Your task to perform on an android device: Open Youtube and go to the subscriptions tab Image 0: 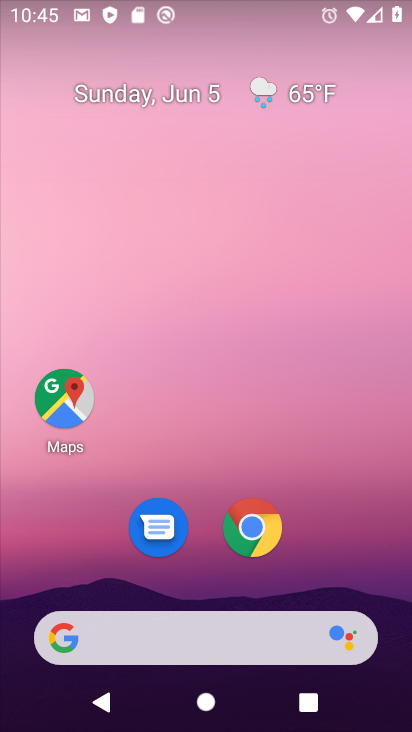
Step 0: drag from (35, 531) to (216, 129)
Your task to perform on an android device: Open Youtube and go to the subscriptions tab Image 1: 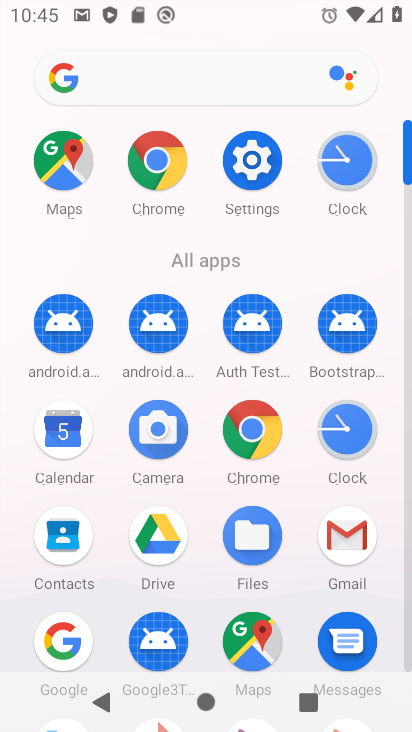
Step 1: drag from (9, 607) to (260, 74)
Your task to perform on an android device: Open Youtube and go to the subscriptions tab Image 2: 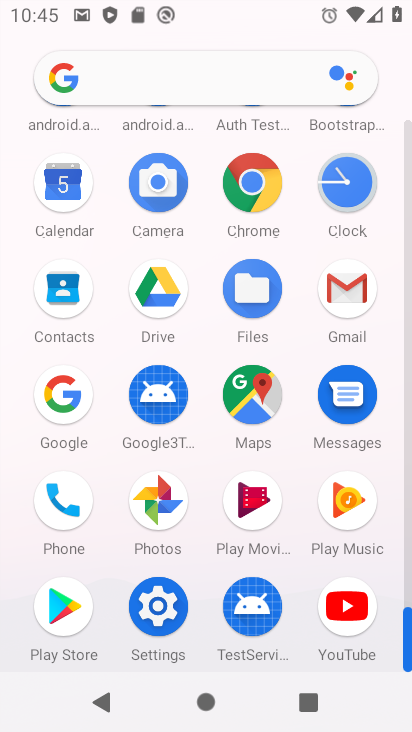
Step 2: click (348, 599)
Your task to perform on an android device: Open Youtube and go to the subscriptions tab Image 3: 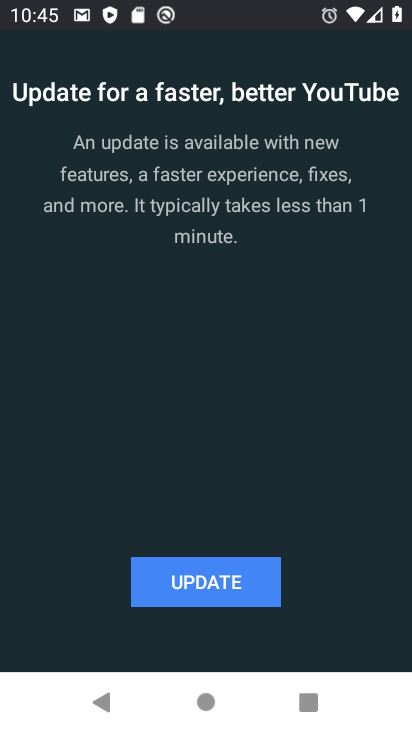
Step 3: task complete